Your task to perform on an android device: turn off translation in the chrome app Image 0: 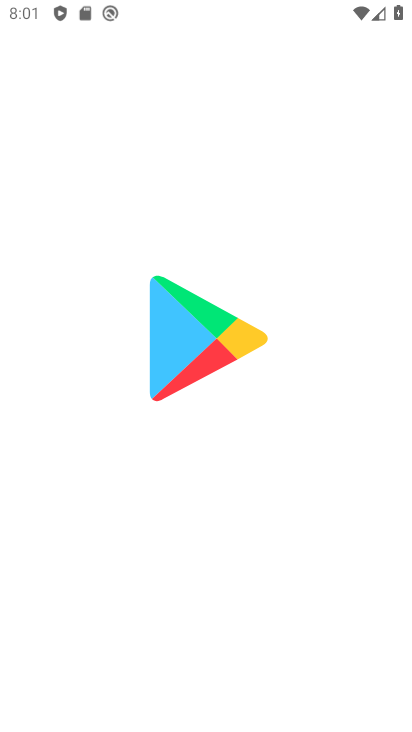
Step 0: press home button
Your task to perform on an android device: turn off translation in the chrome app Image 1: 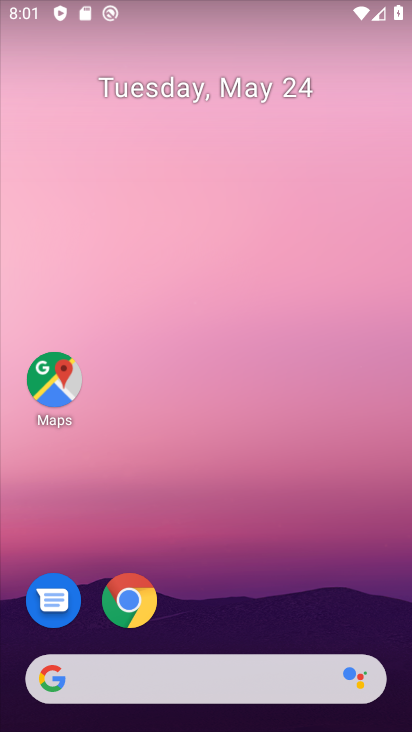
Step 1: click (134, 595)
Your task to perform on an android device: turn off translation in the chrome app Image 2: 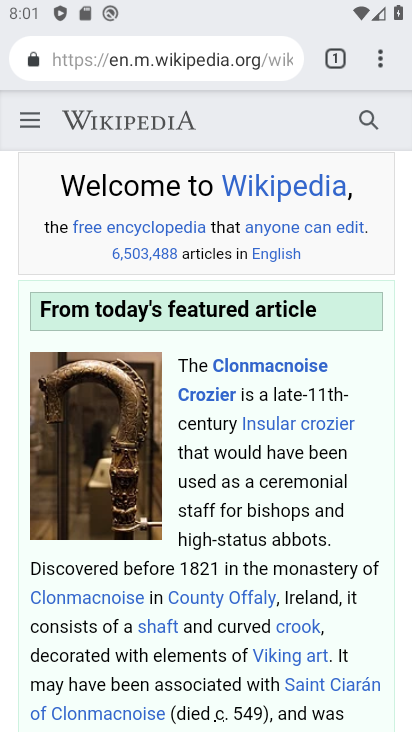
Step 2: click (382, 67)
Your task to perform on an android device: turn off translation in the chrome app Image 3: 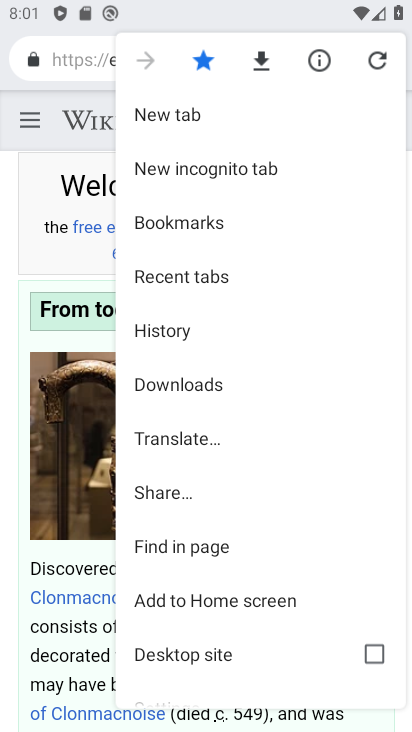
Step 3: drag from (186, 631) to (195, 215)
Your task to perform on an android device: turn off translation in the chrome app Image 4: 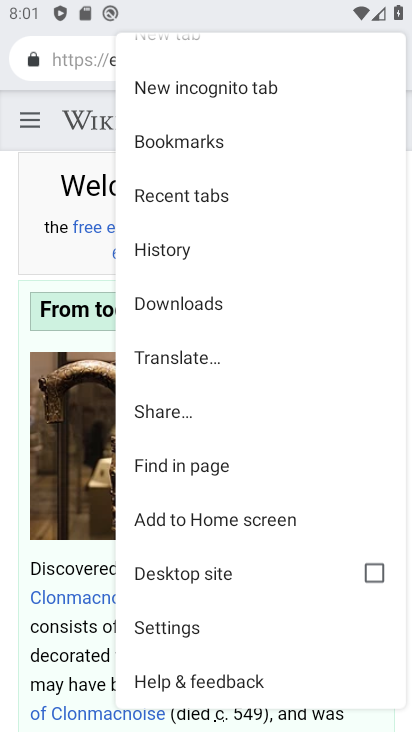
Step 4: click (175, 627)
Your task to perform on an android device: turn off translation in the chrome app Image 5: 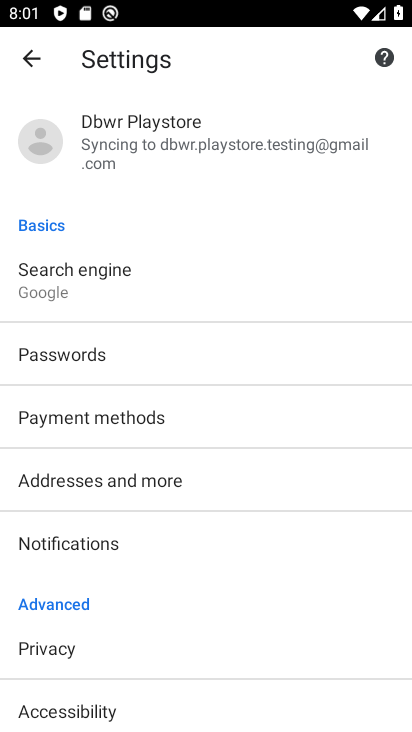
Step 5: drag from (98, 665) to (124, 297)
Your task to perform on an android device: turn off translation in the chrome app Image 6: 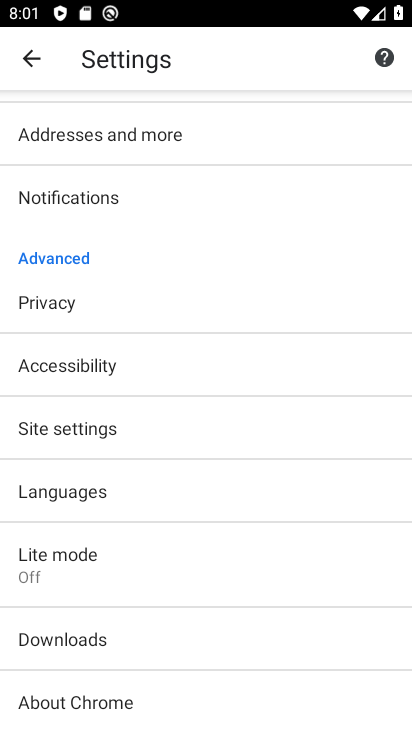
Step 6: click (66, 491)
Your task to perform on an android device: turn off translation in the chrome app Image 7: 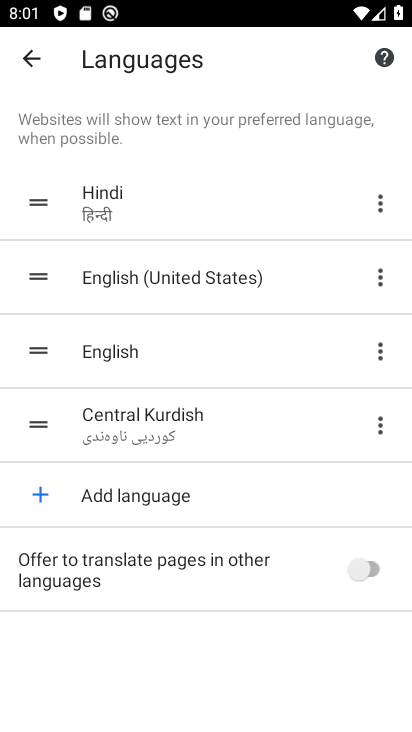
Step 7: task complete